Your task to perform on an android device: Open Google Chrome and open the bookmarks view Image 0: 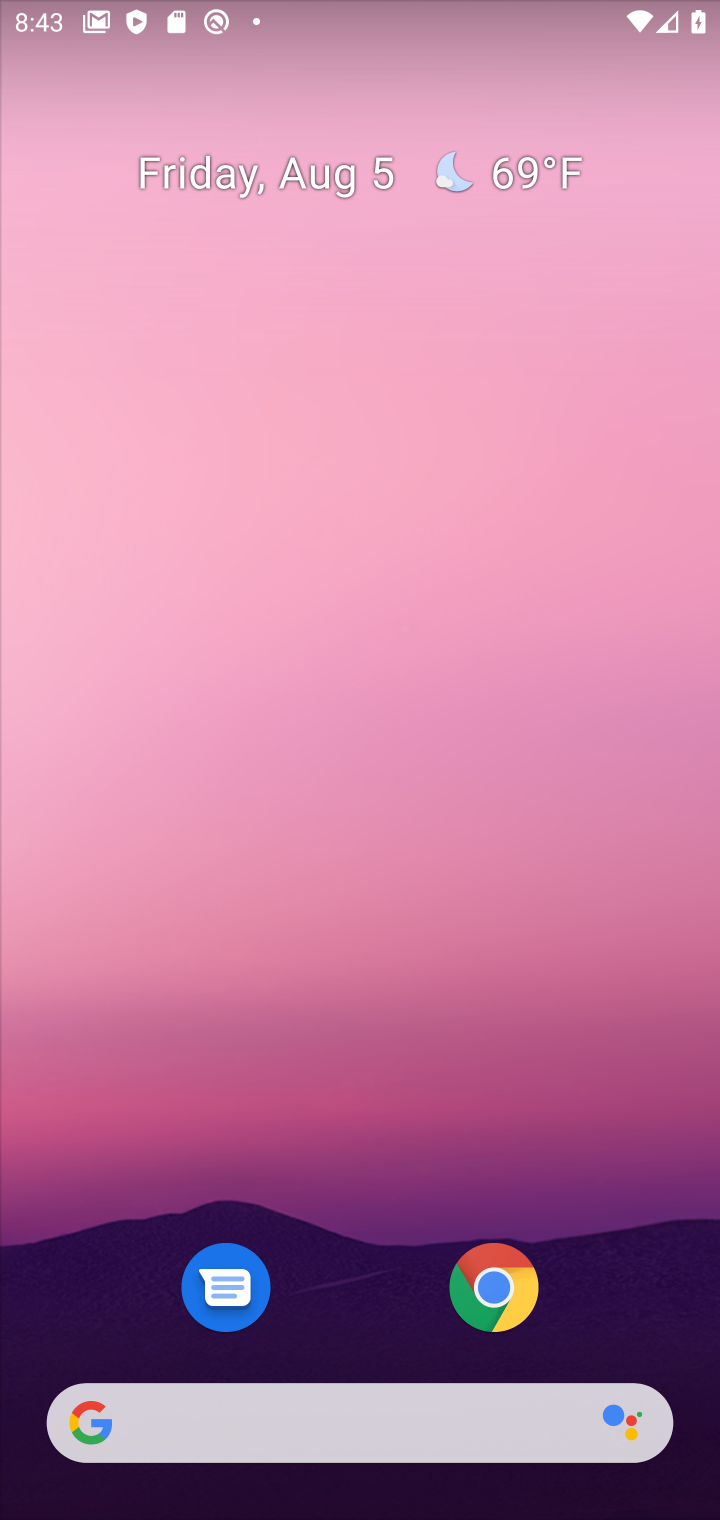
Step 0: click (493, 1285)
Your task to perform on an android device: Open Google Chrome and open the bookmarks view Image 1: 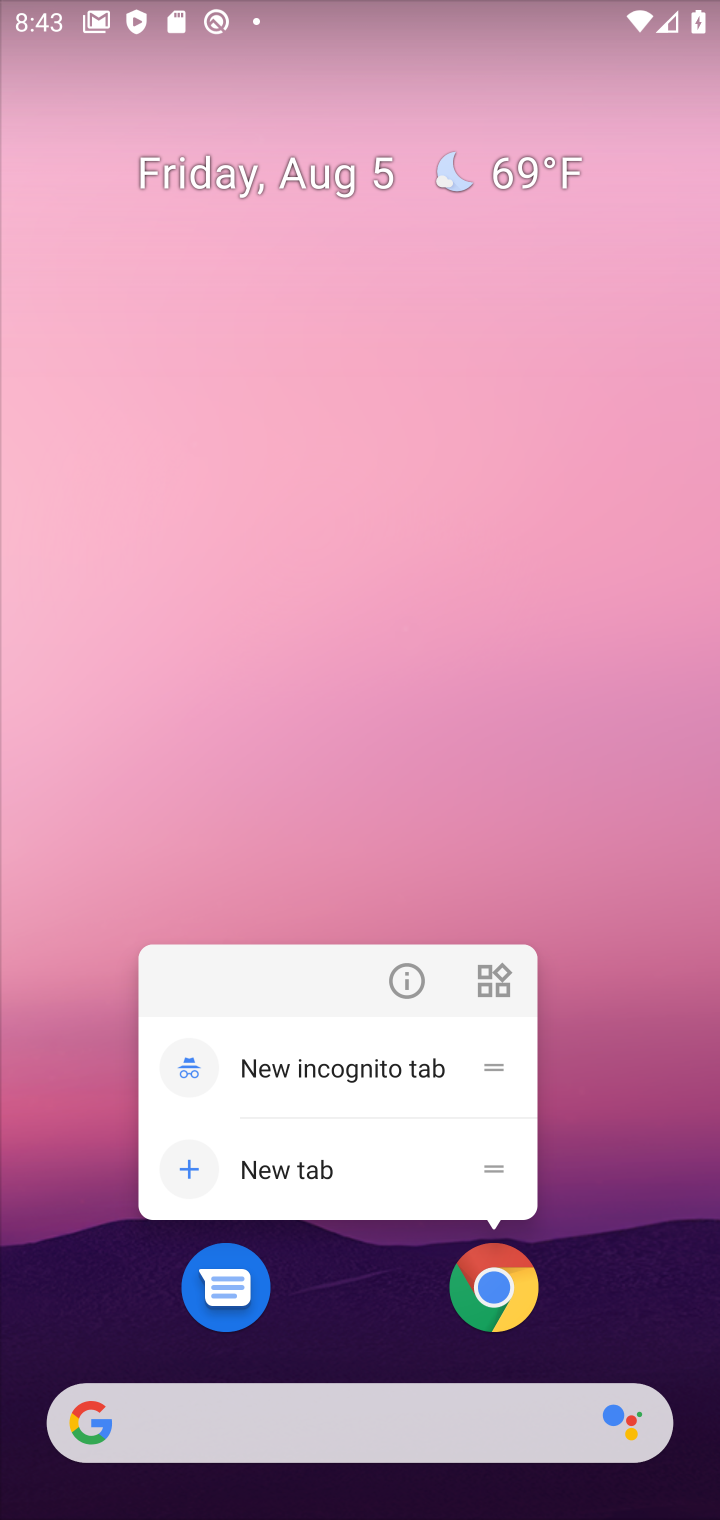
Step 1: click (493, 1285)
Your task to perform on an android device: Open Google Chrome and open the bookmarks view Image 2: 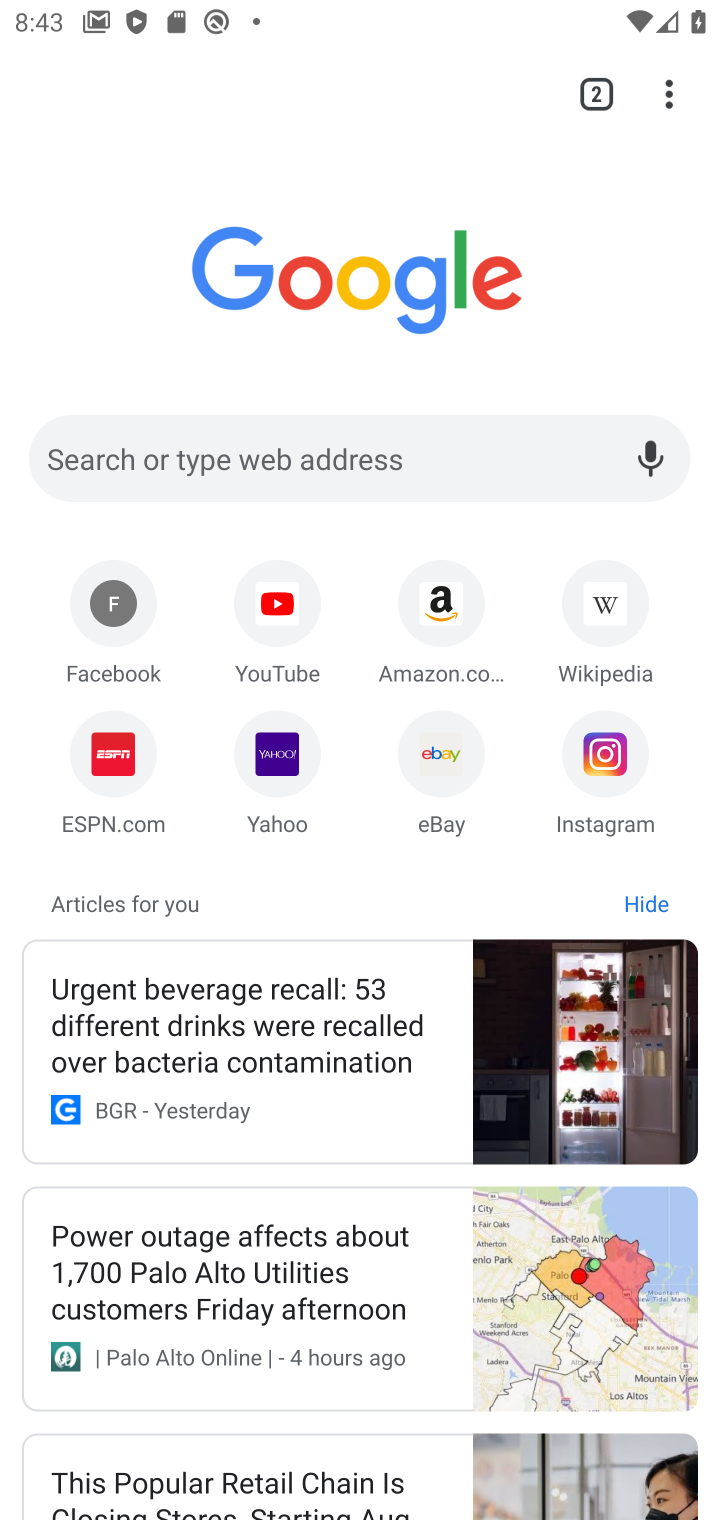
Step 2: click (667, 106)
Your task to perform on an android device: Open Google Chrome and open the bookmarks view Image 3: 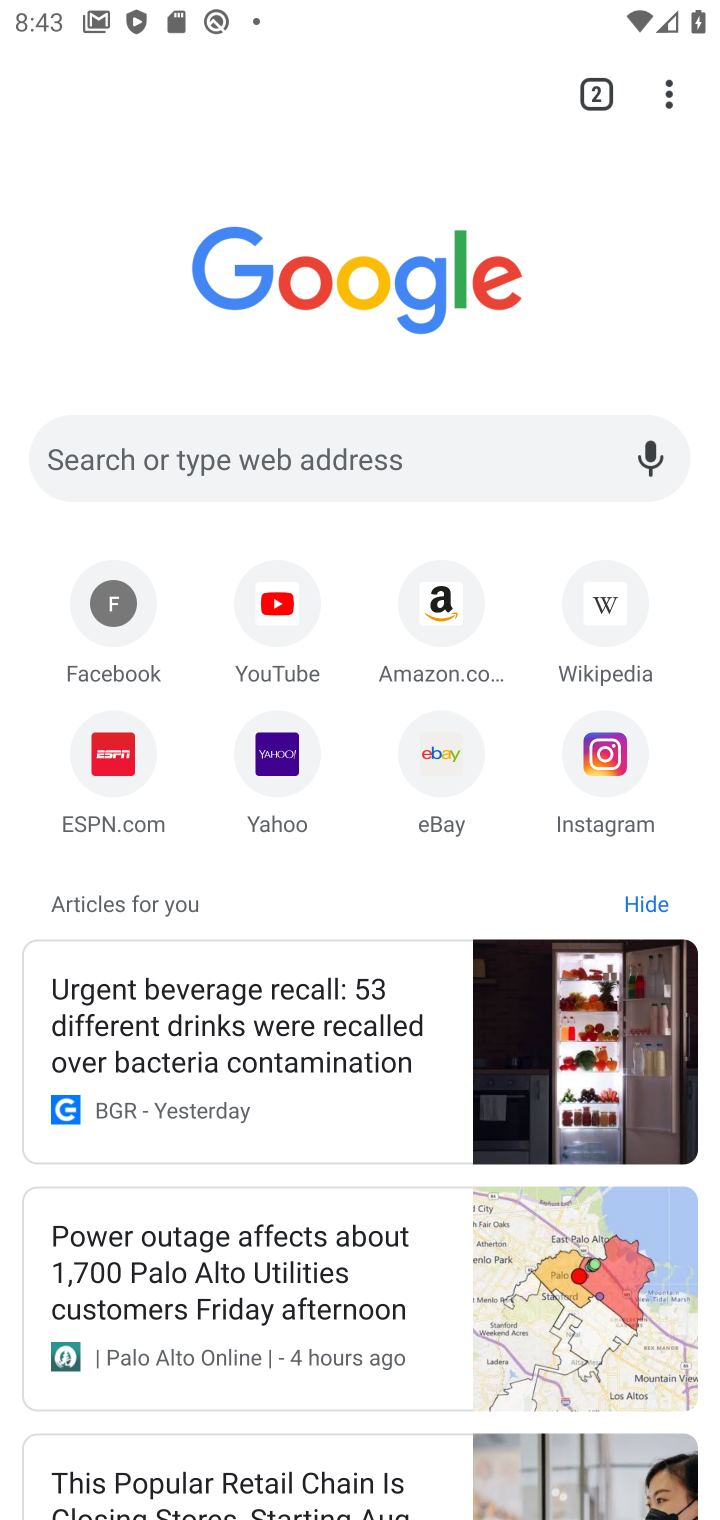
Step 3: click (667, 106)
Your task to perform on an android device: Open Google Chrome and open the bookmarks view Image 4: 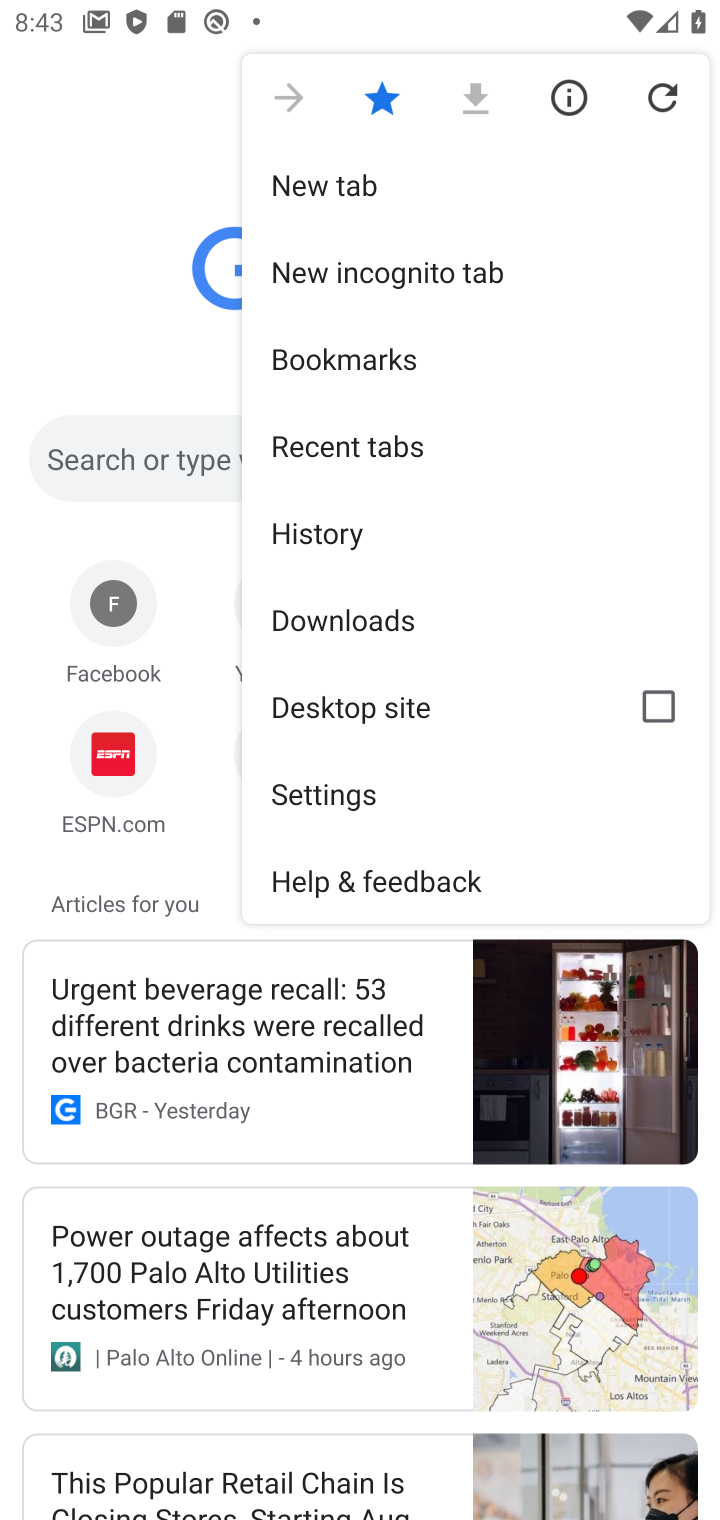
Step 4: click (376, 360)
Your task to perform on an android device: Open Google Chrome and open the bookmarks view Image 5: 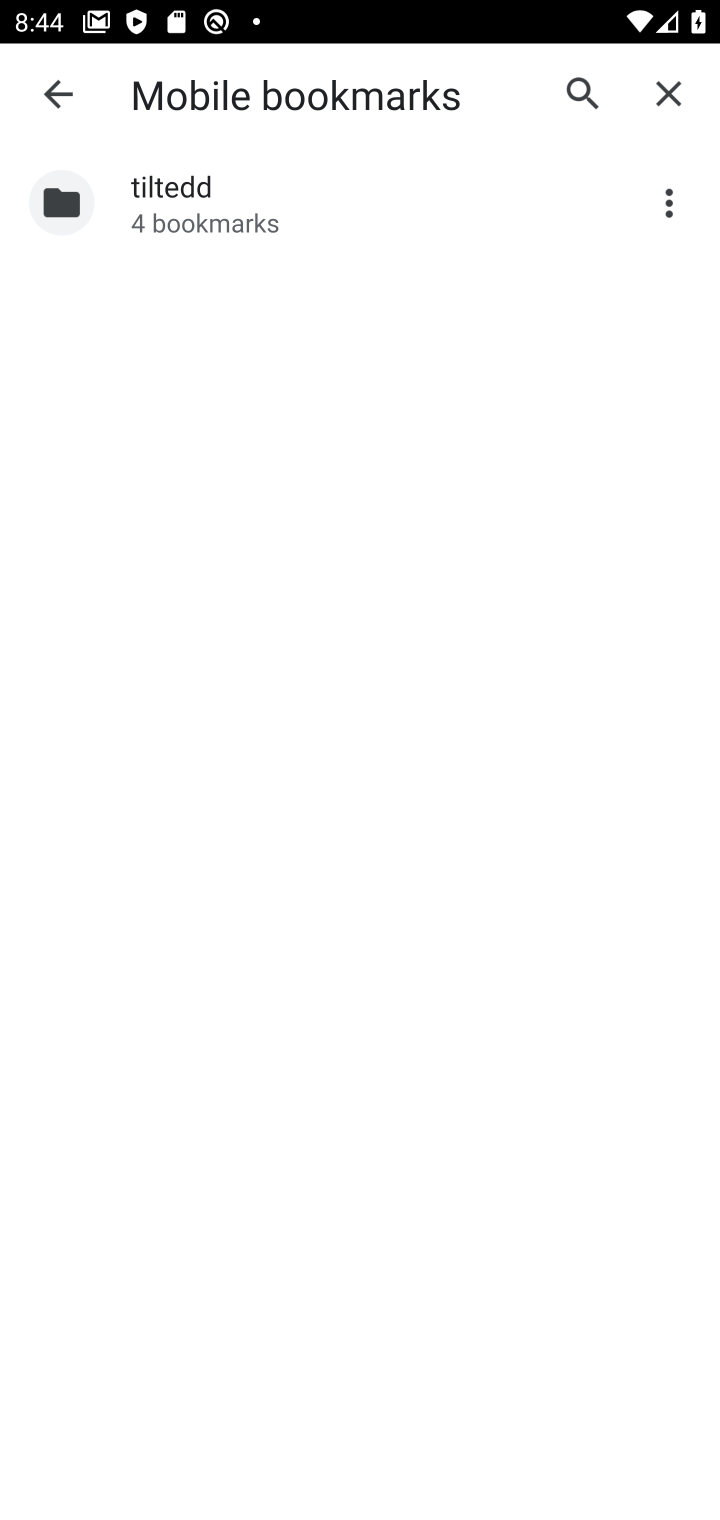
Step 5: click (175, 195)
Your task to perform on an android device: Open Google Chrome and open the bookmarks view Image 6: 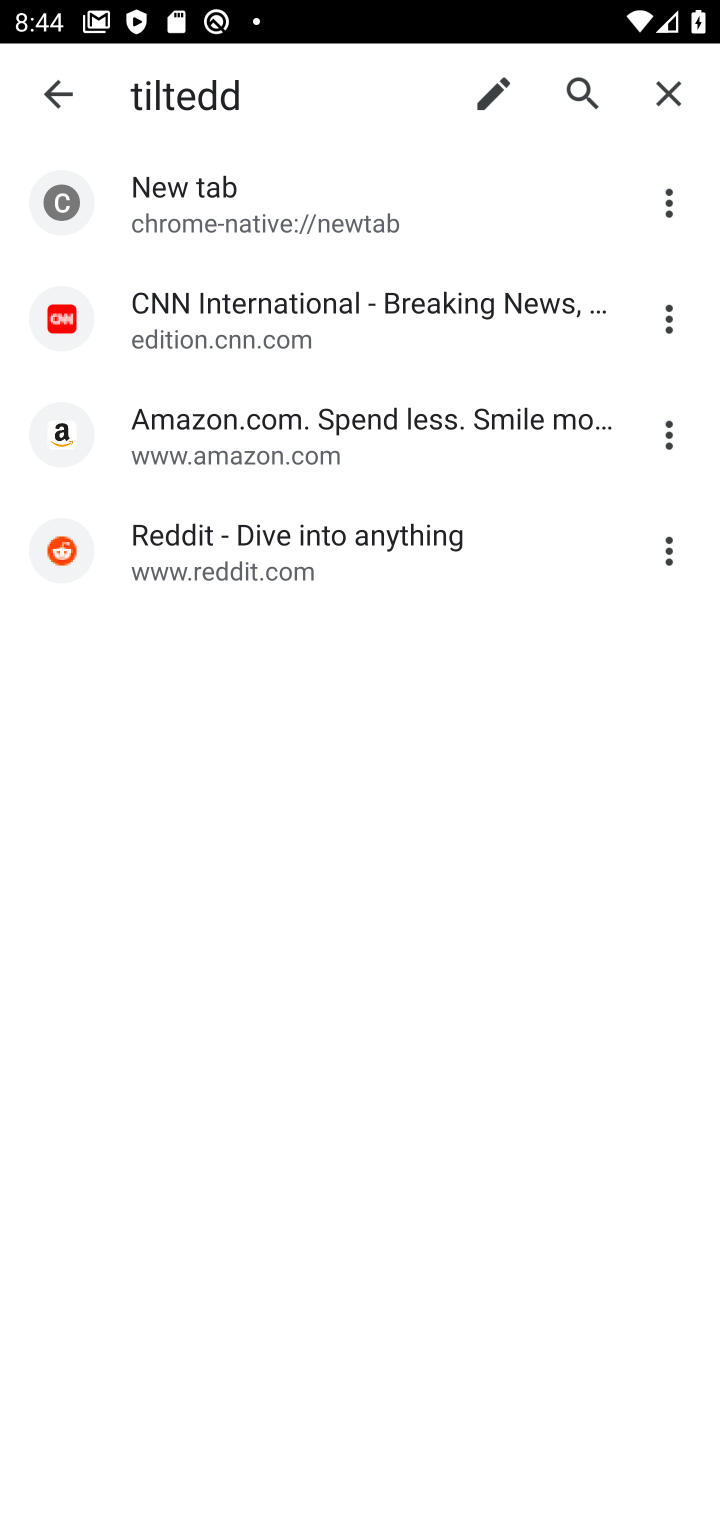
Step 6: task complete